Your task to perform on an android device: add a contact in the contacts app Image 0: 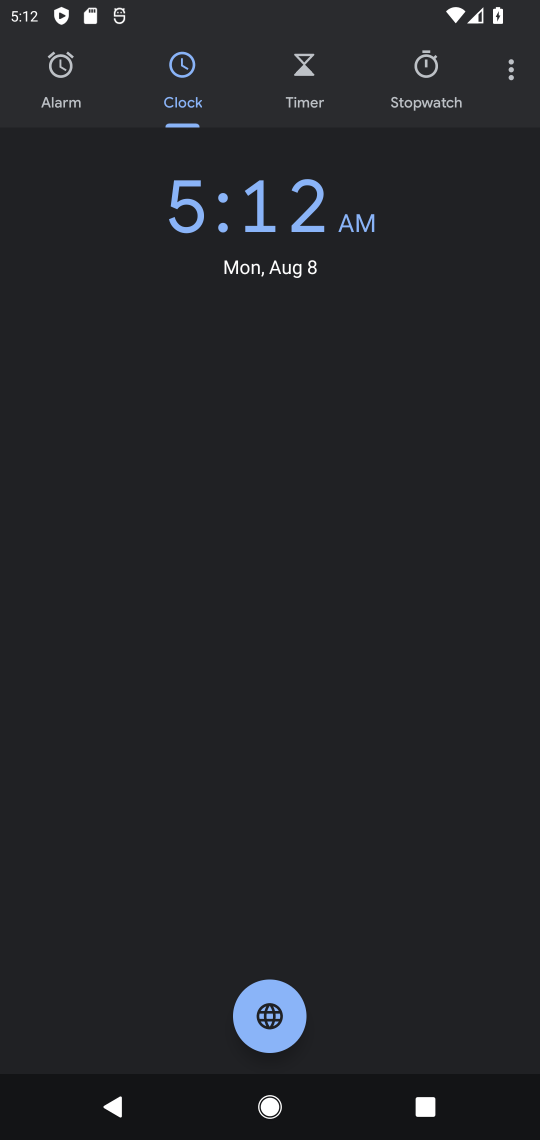
Step 0: press home button
Your task to perform on an android device: add a contact in the contacts app Image 1: 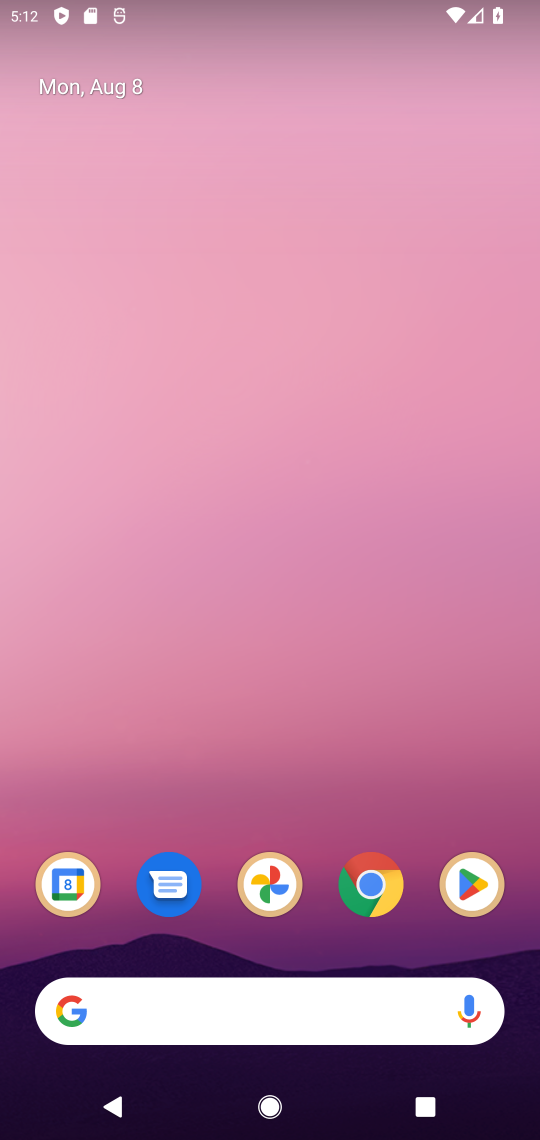
Step 1: drag from (332, 840) to (268, 108)
Your task to perform on an android device: add a contact in the contacts app Image 2: 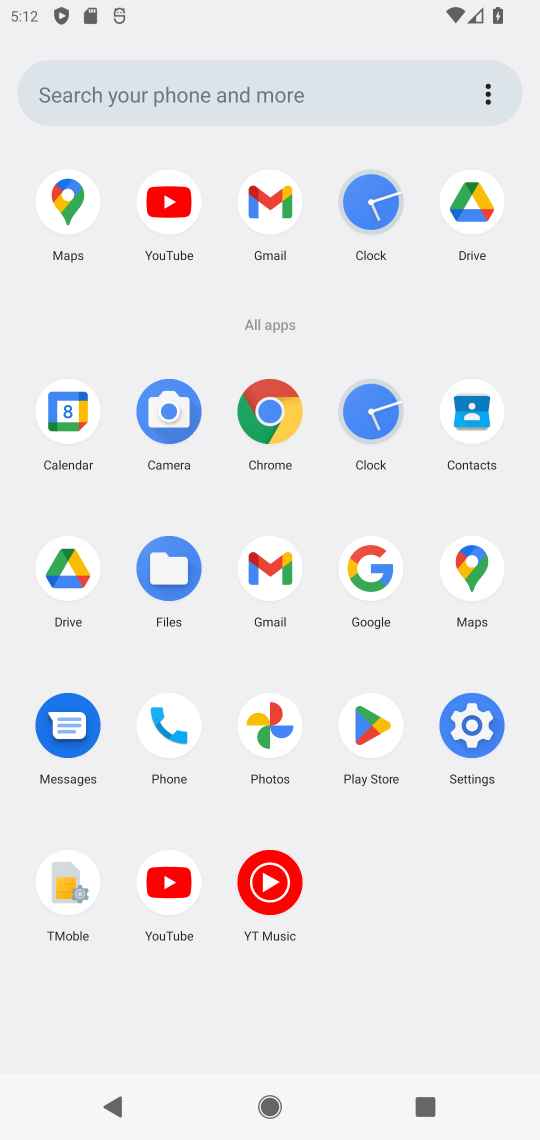
Step 2: click (476, 413)
Your task to perform on an android device: add a contact in the contacts app Image 3: 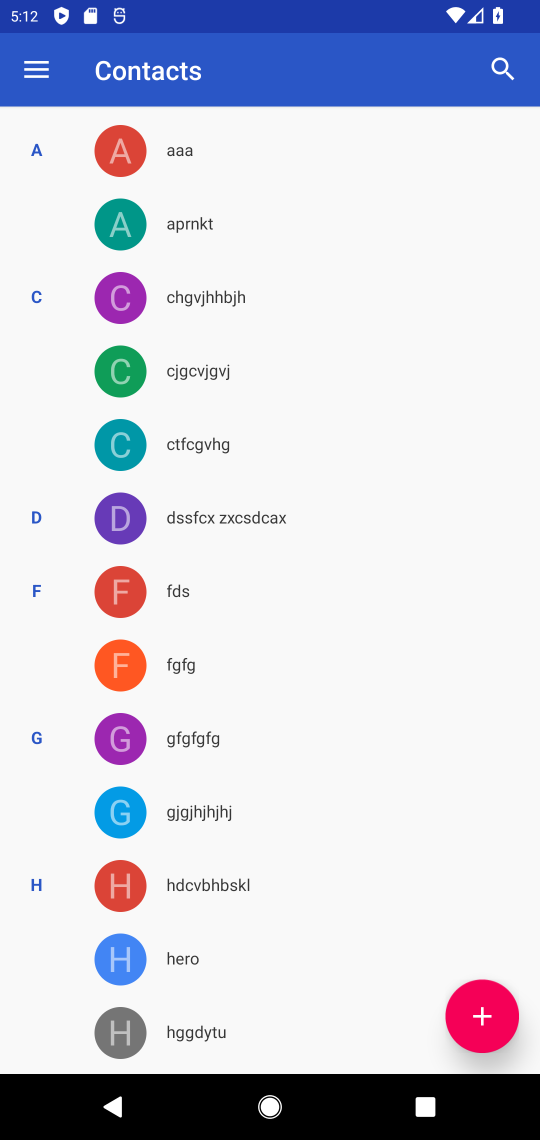
Step 3: click (478, 1036)
Your task to perform on an android device: add a contact in the contacts app Image 4: 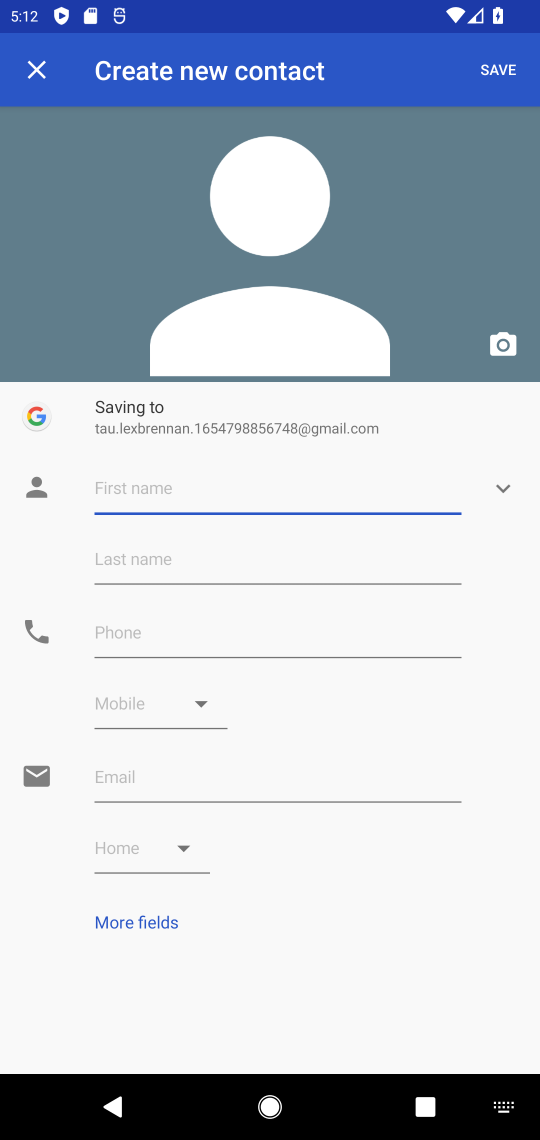
Step 4: click (256, 488)
Your task to perform on an android device: add a contact in the contacts app Image 5: 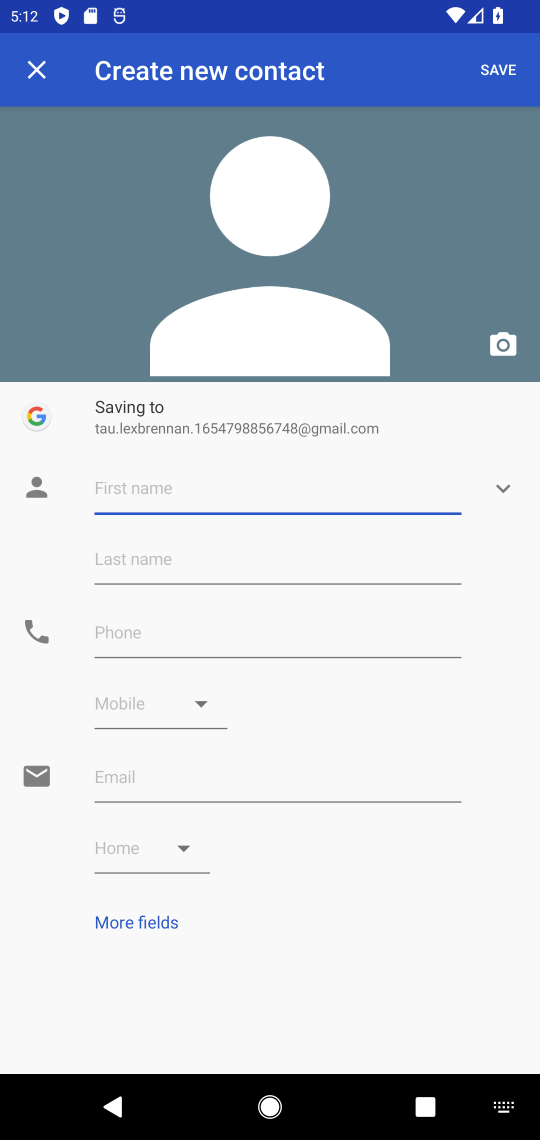
Step 5: type "kjdcbhjd"
Your task to perform on an android device: add a contact in the contacts app Image 6: 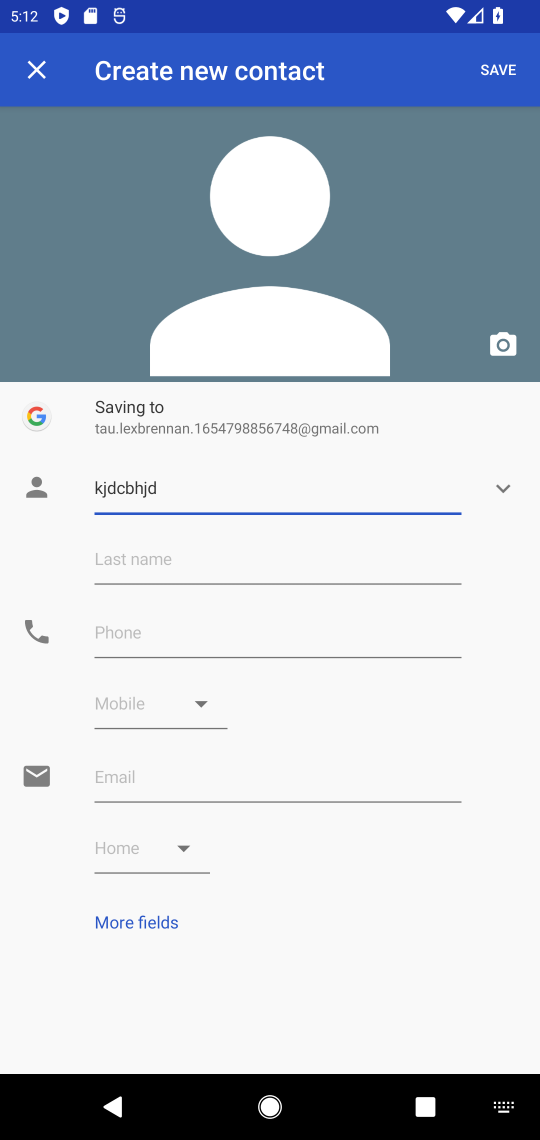
Step 6: click (268, 631)
Your task to perform on an android device: add a contact in the contacts app Image 7: 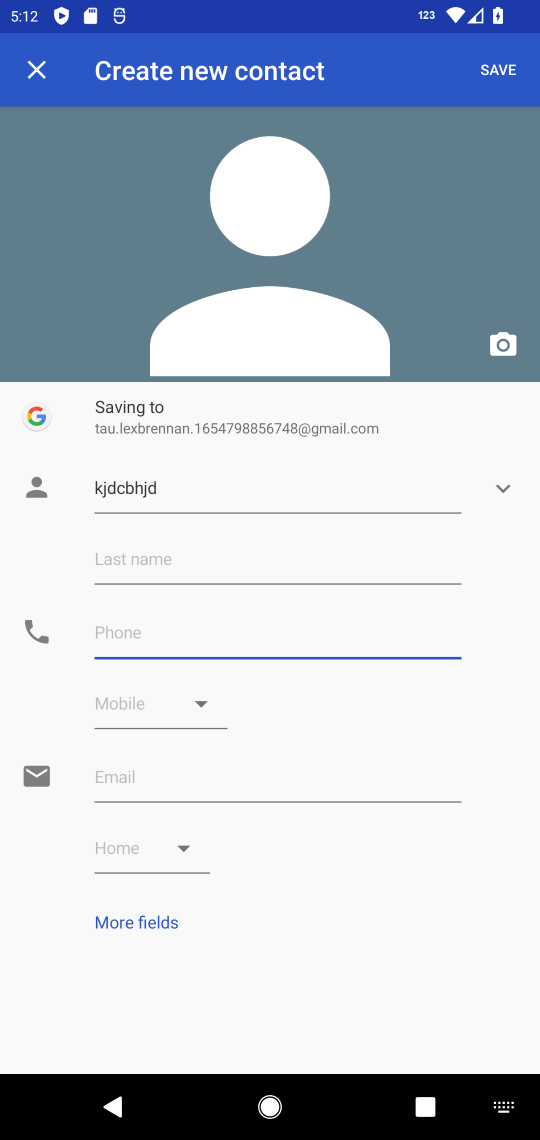
Step 7: type "78789789"
Your task to perform on an android device: add a contact in the contacts app Image 8: 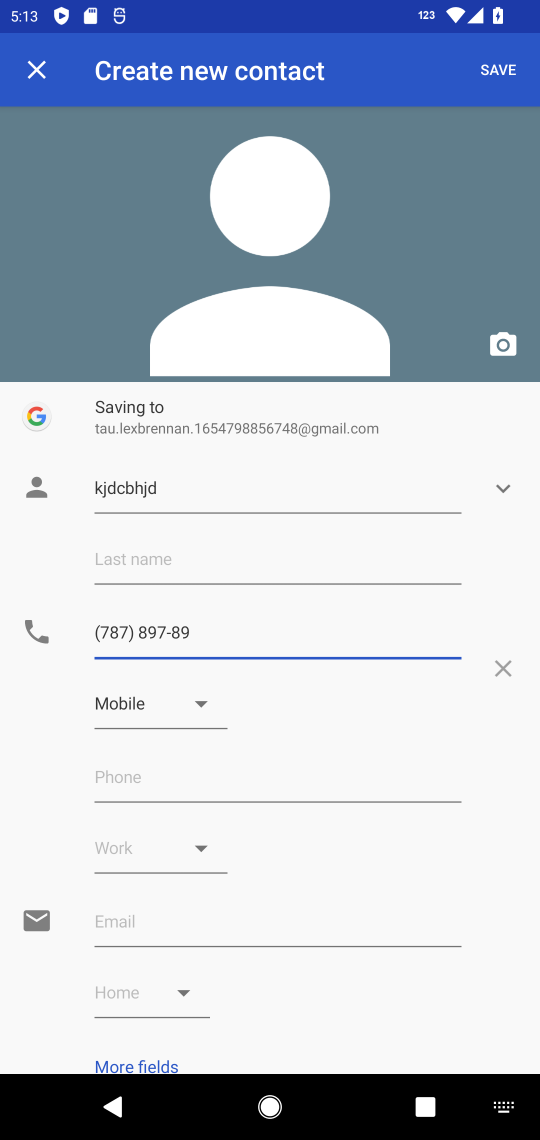
Step 8: click (515, 73)
Your task to perform on an android device: add a contact in the contacts app Image 9: 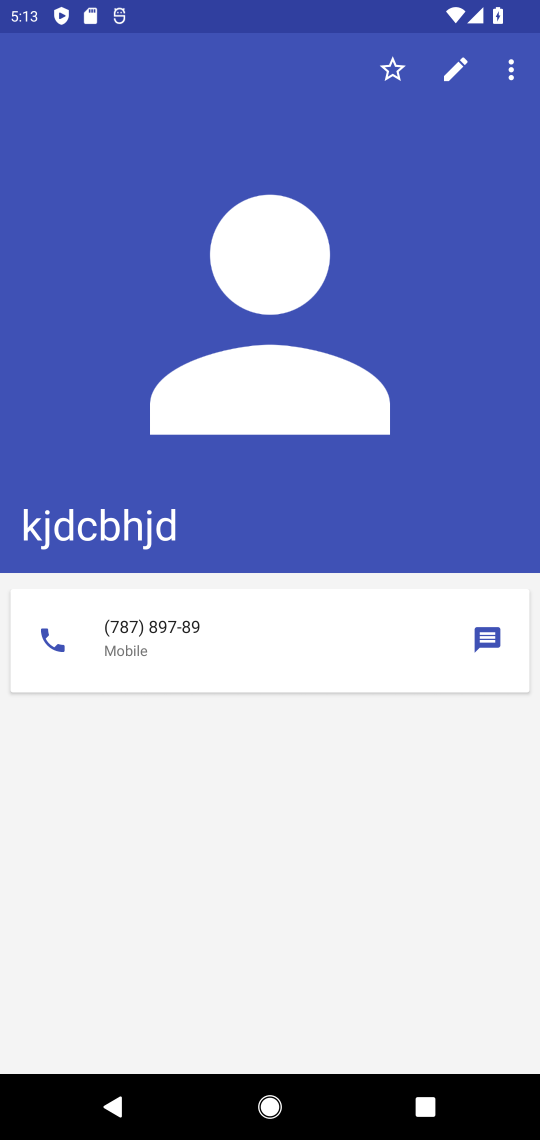
Step 9: task complete